Your task to perform on an android device: allow cookies in the chrome app Image 0: 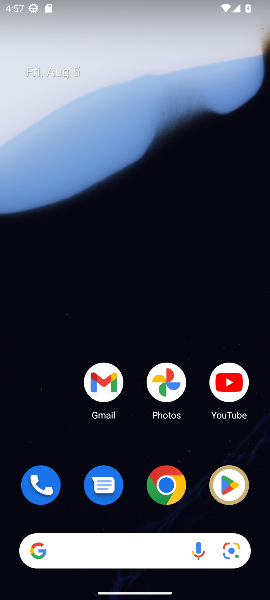
Step 0: click (156, 480)
Your task to perform on an android device: allow cookies in the chrome app Image 1: 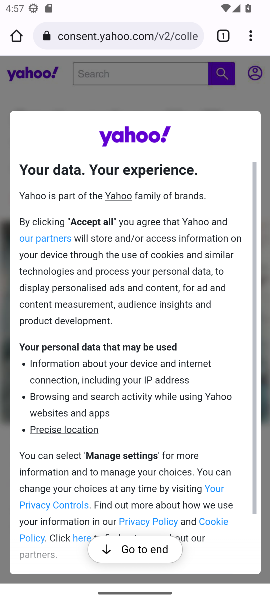
Step 1: click (251, 25)
Your task to perform on an android device: allow cookies in the chrome app Image 2: 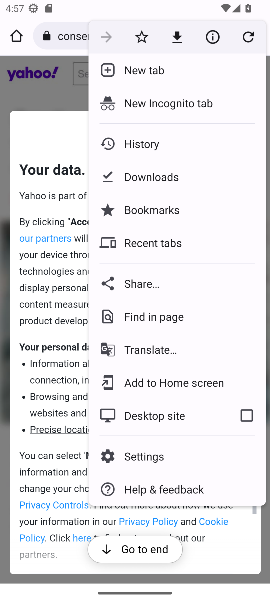
Step 2: click (148, 451)
Your task to perform on an android device: allow cookies in the chrome app Image 3: 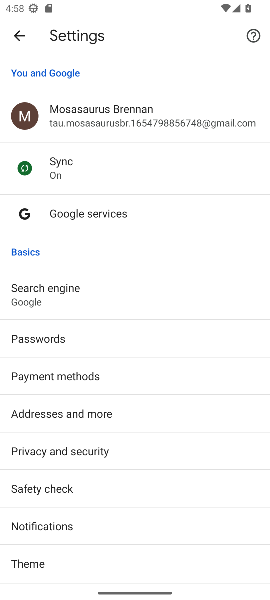
Step 3: drag from (114, 513) to (134, 275)
Your task to perform on an android device: allow cookies in the chrome app Image 4: 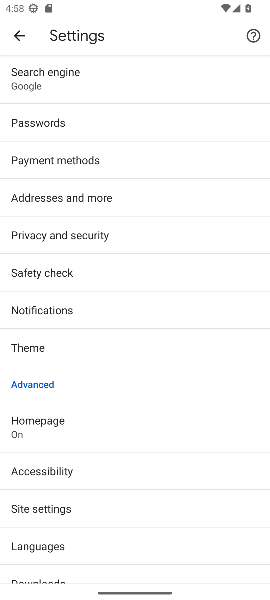
Step 4: click (70, 510)
Your task to perform on an android device: allow cookies in the chrome app Image 5: 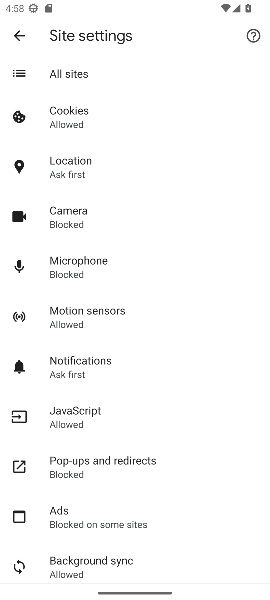
Step 5: click (104, 115)
Your task to perform on an android device: allow cookies in the chrome app Image 6: 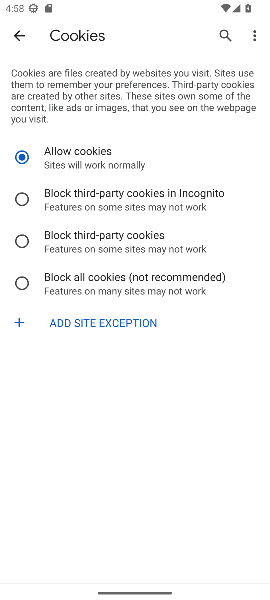
Step 6: task complete